Your task to perform on an android device: remove spam from my inbox in the gmail app Image 0: 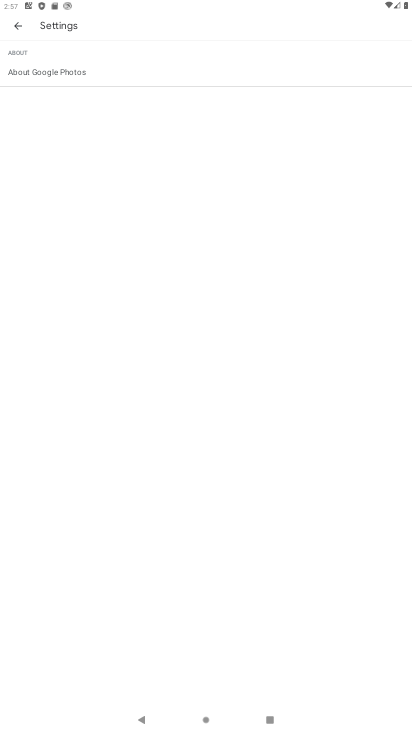
Step 0: press home button
Your task to perform on an android device: remove spam from my inbox in the gmail app Image 1: 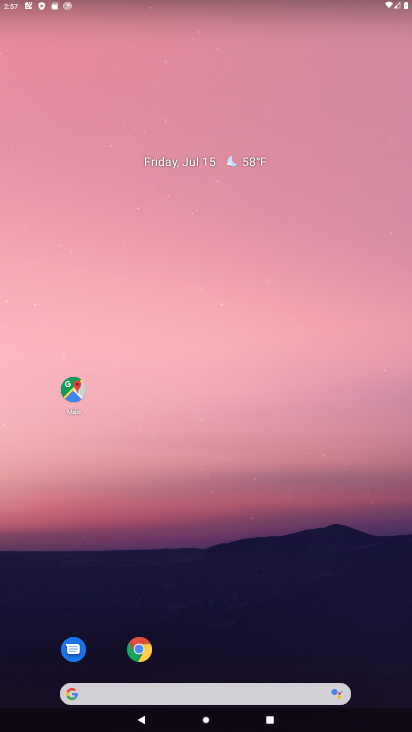
Step 1: drag from (219, 605) to (237, 211)
Your task to perform on an android device: remove spam from my inbox in the gmail app Image 2: 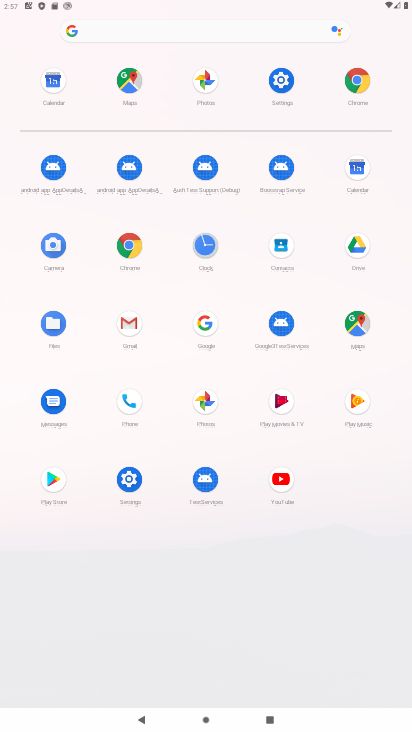
Step 2: click (134, 321)
Your task to perform on an android device: remove spam from my inbox in the gmail app Image 3: 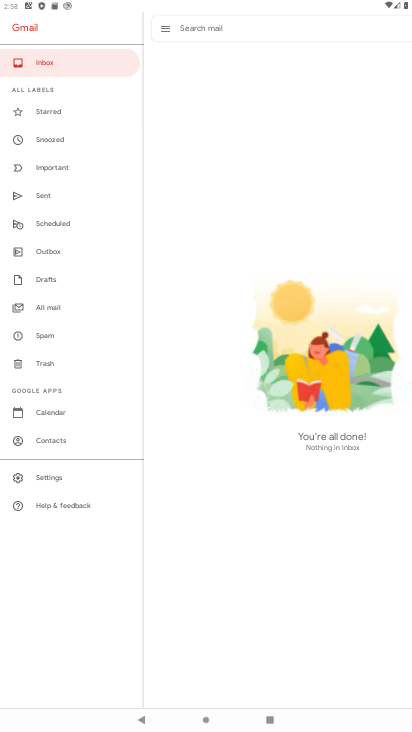
Step 3: task complete